Your task to perform on an android device: Open sound settings Image 0: 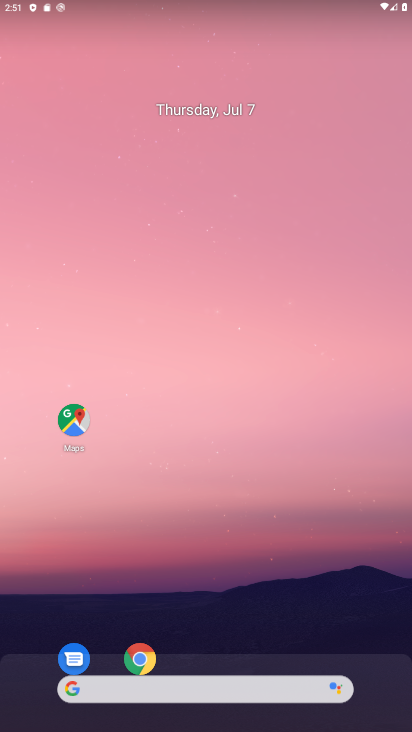
Step 0: drag from (185, 619) to (229, 83)
Your task to perform on an android device: Open sound settings Image 1: 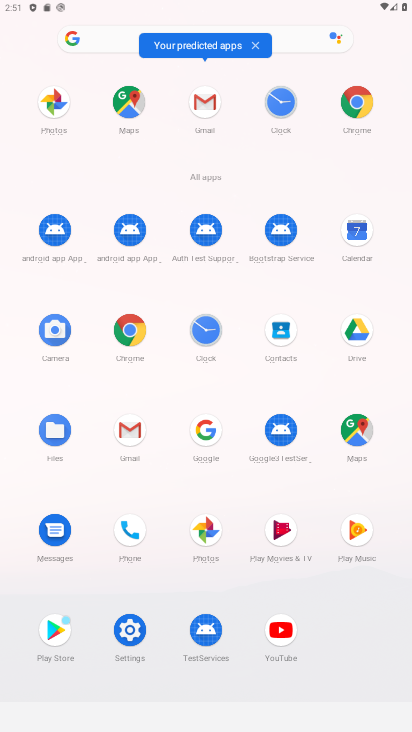
Step 1: click (126, 638)
Your task to perform on an android device: Open sound settings Image 2: 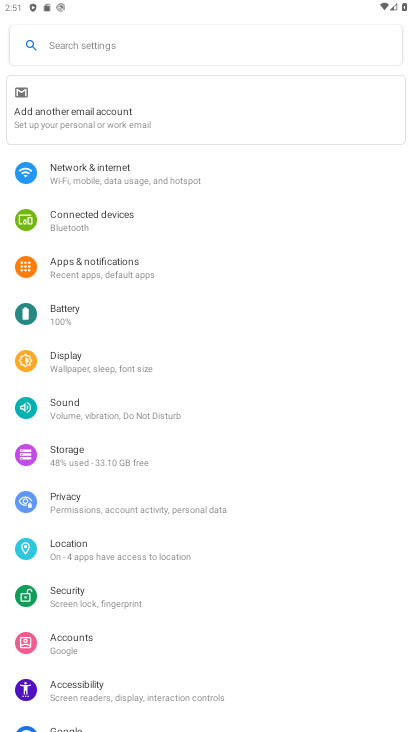
Step 2: click (64, 410)
Your task to perform on an android device: Open sound settings Image 3: 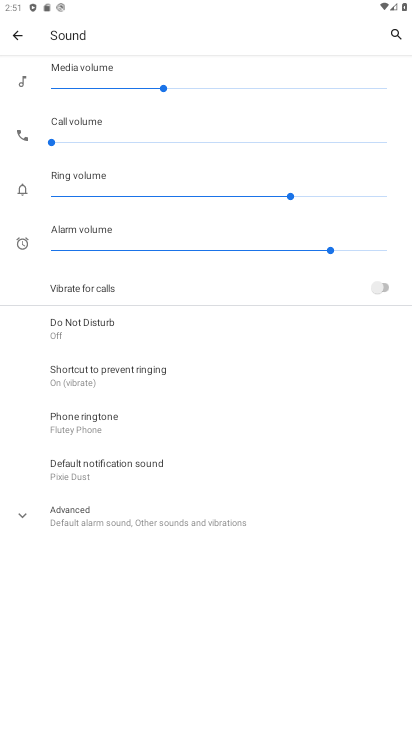
Step 3: task complete